Your task to perform on an android device: visit the assistant section in the google photos Image 0: 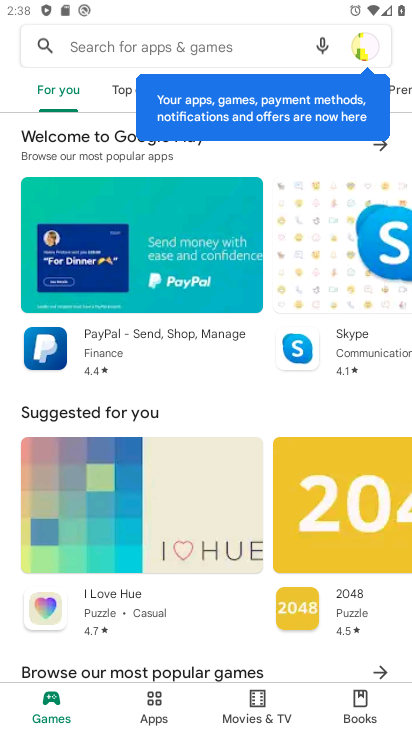
Step 0: press home button
Your task to perform on an android device: visit the assistant section in the google photos Image 1: 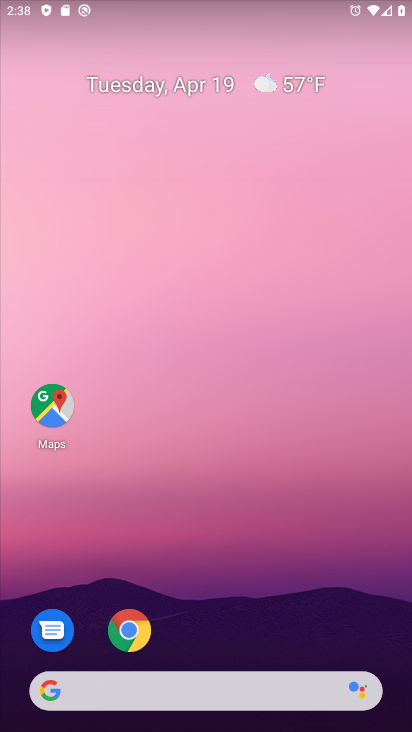
Step 1: drag from (199, 611) to (273, 18)
Your task to perform on an android device: visit the assistant section in the google photos Image 2: 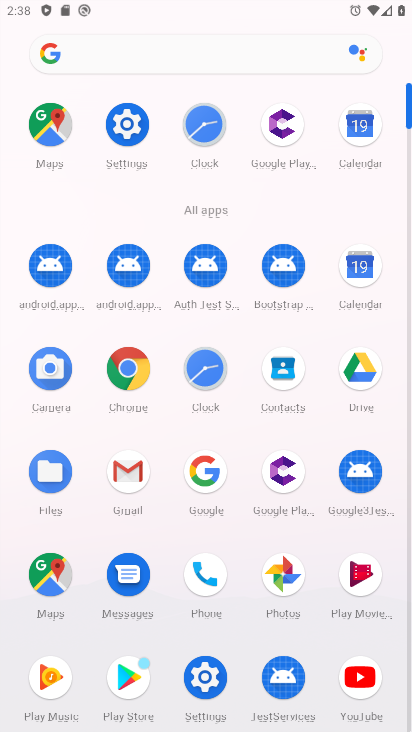
Step 2: click (288, 575)
Your task to perform on an android device: visit the assistant section in the google photos Image 3: 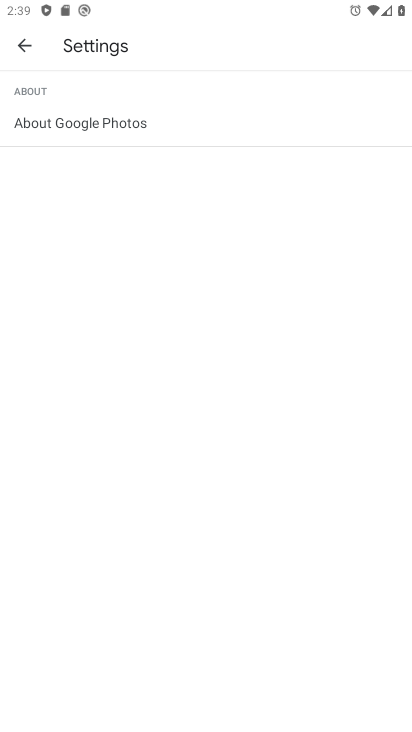
Step 3: click (23, 55)
Your task to perform on an android device: visit the assistant section in the google photos Image 4: 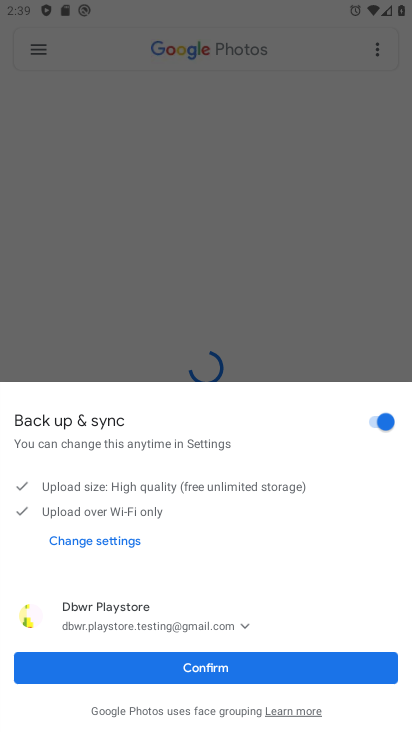
Step 4: click (189, 663)
Your task to perform on an android device: visit the assistant section in the google photos Image 5: 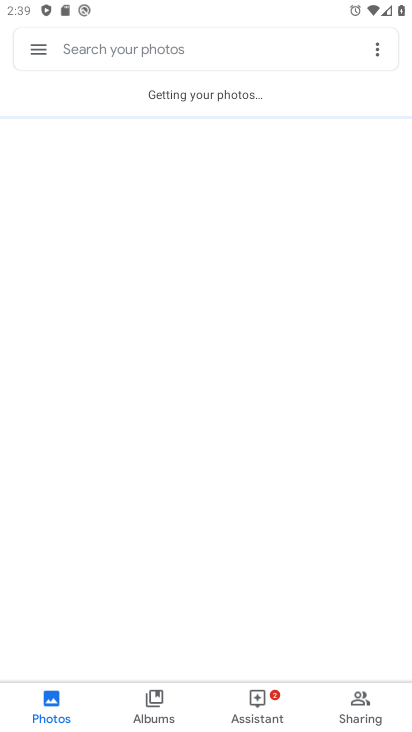
Step 5: click (254, 707)
Your task to perform on an android device: visit the assistant section in the google photos Image 6: 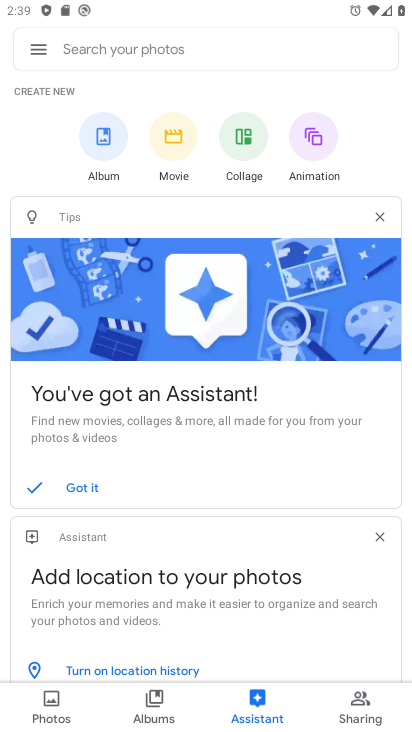
Step 6: task complete